Your task to perform on an android device: check battery use Image 0: 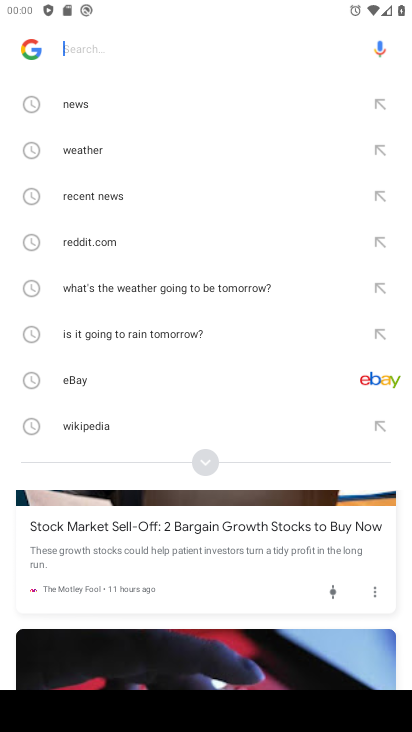
Step 0: press home button
Your task to perform on an android device: check battery use Image 1: 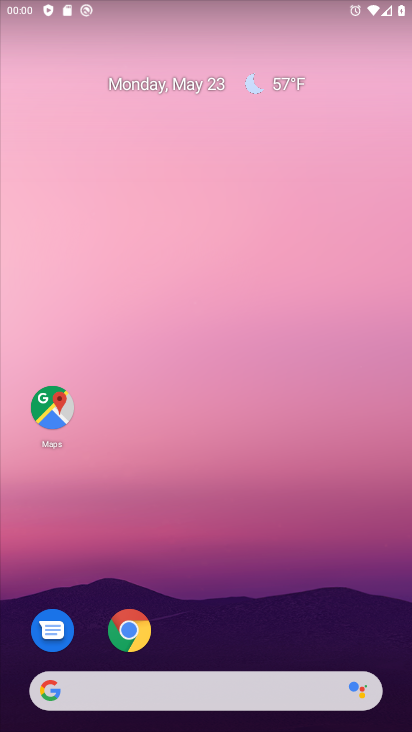
Step 1: drag from (311, 540) to (113, 2)
Your task to perform on an android device: check battery use Image 2: 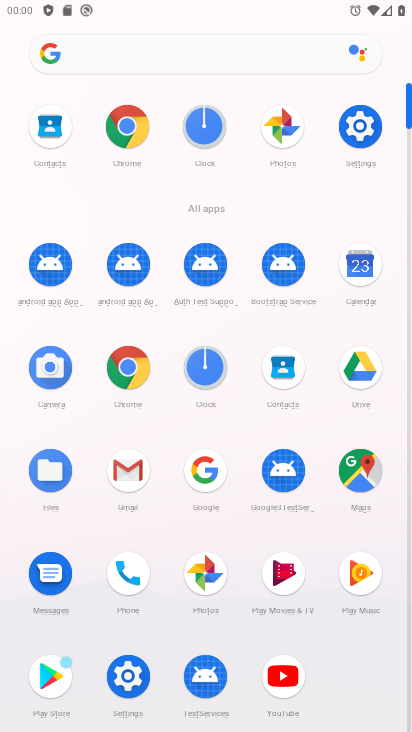
Step 2: click (360, 110)
Your task to perform on an android device: check battery use Image 3: 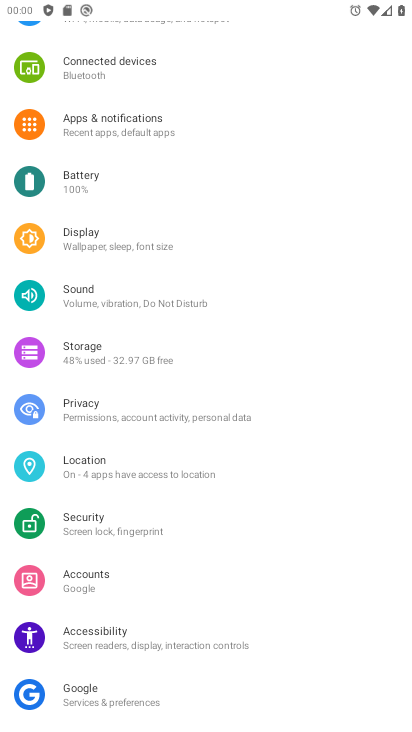
Step 3: click (138, 198)
Your task to perform on an android device: check battery use Image 4: 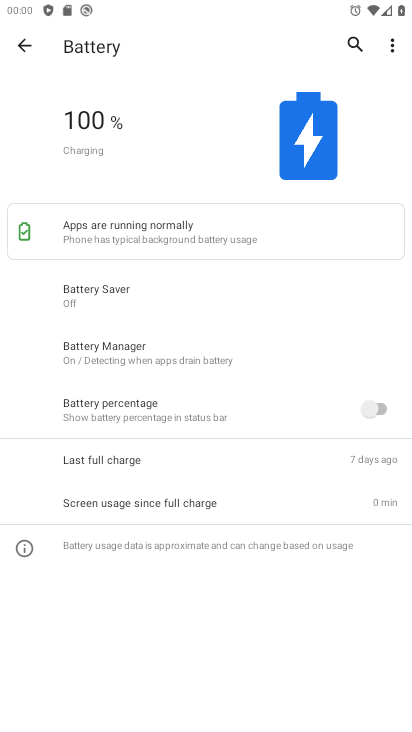
Step 4: click (397, 40)
Your task to perform on an android device: check battery use Image 5: 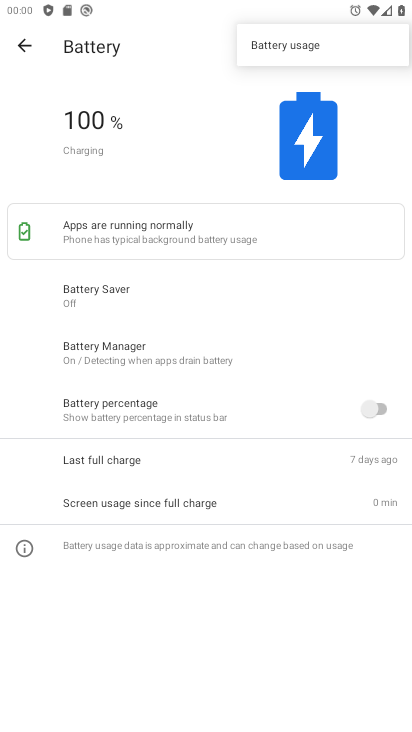
Step 5: click (319, 43)
Your task to perform on an android device: check battery use Image 6: 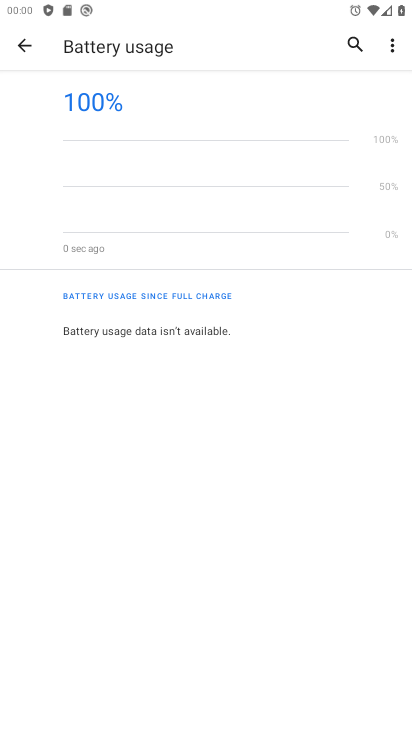
Step 6: task complete